Your task to perform on an android device: find photos in the google photos app Image 0: 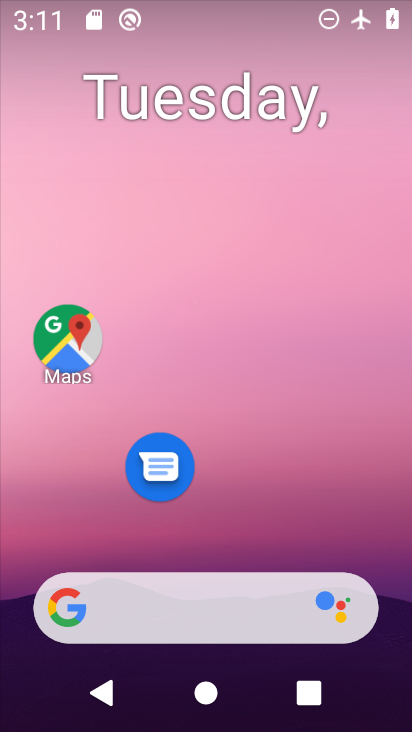
Step 0: drag from (251, 506) to (266, 177)
Your task to perform on an android device: find photos in the google photos app Image 1: 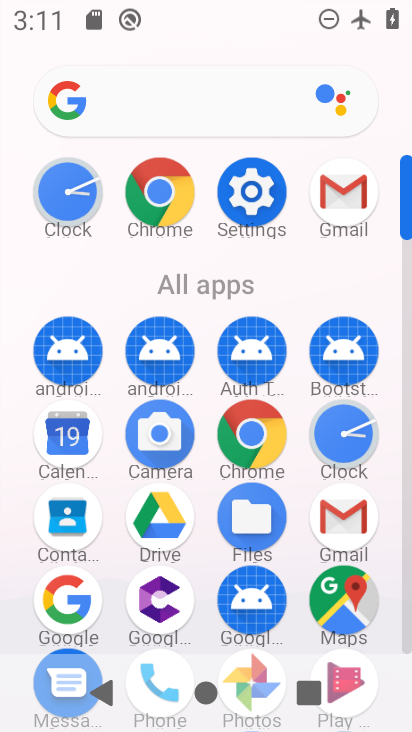
Step 1: drag from (293, 564) to (305, 335)
Your task to perform on an android device: find photos in the google photos app Image 2: 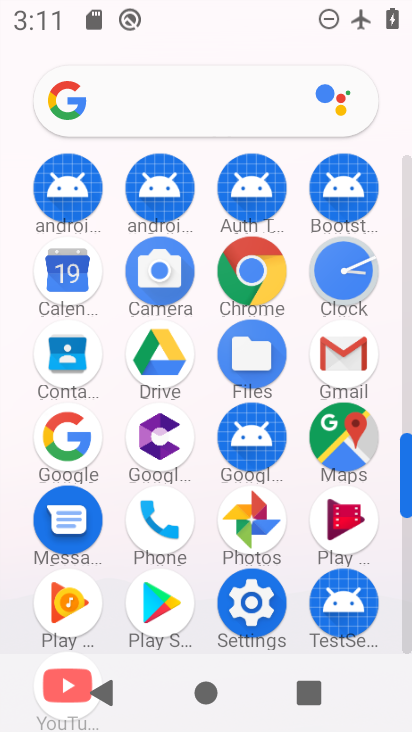
Step 2: click (258, 523)
Your task to perform on an android device: find photos in the google photos app Image 3: 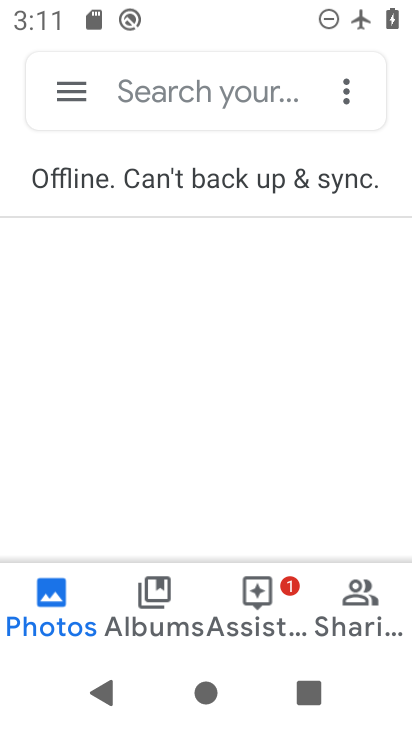
Step 3: task complete